Your task to perform on an android device: delete a single message in the gmail app Image 0: 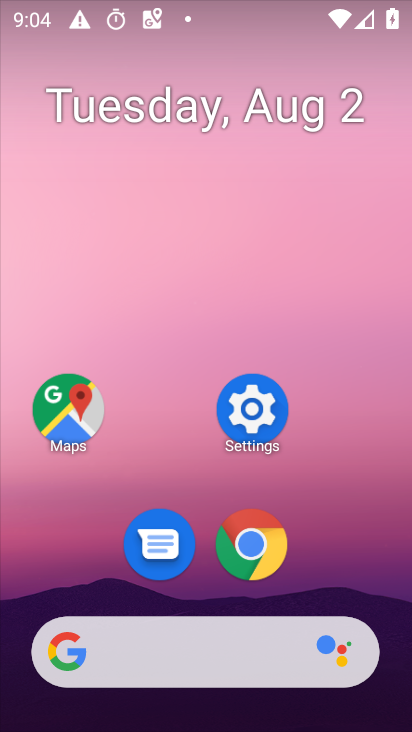
Step 0: drag from (219, 555) to (250, 97)
Your task to perform on an android device: delete a single message in the gmail app Image 1: 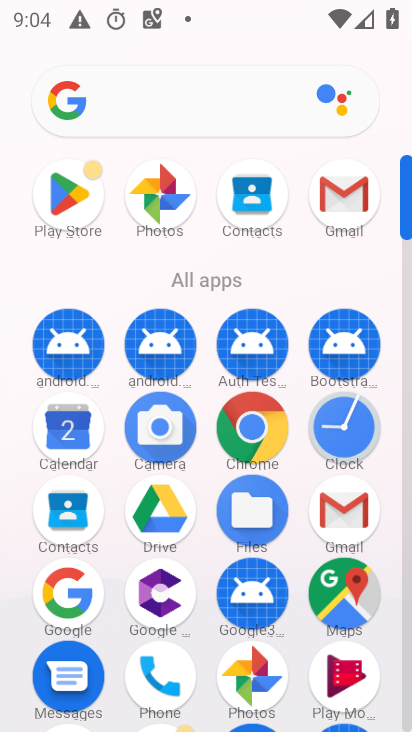
Step 1: click (352, 198)
Your task to perform on an android device: delete a single message in the gmail app Image 2: 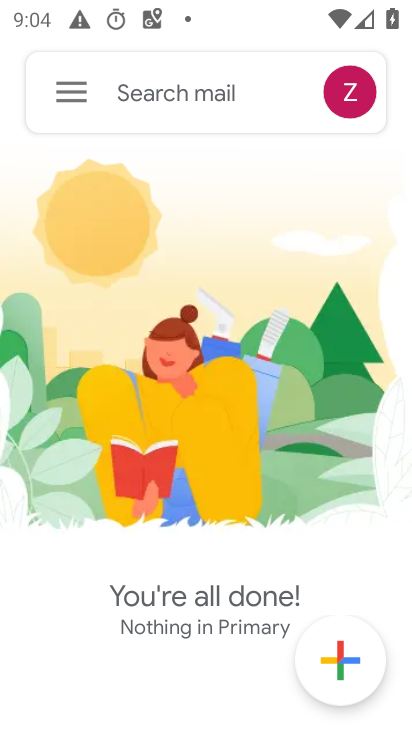
Step 2: task complete